Your task to perform on an android device: visit the assistant section in the google photos Image 0: 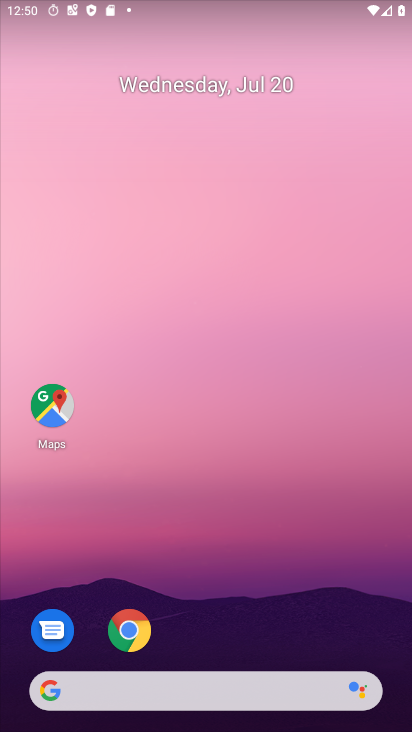
Step 0: drag from (235, 631) to (265, 330)
Your task to perform on an android device: visit the assistant section in the google photos Image 1: 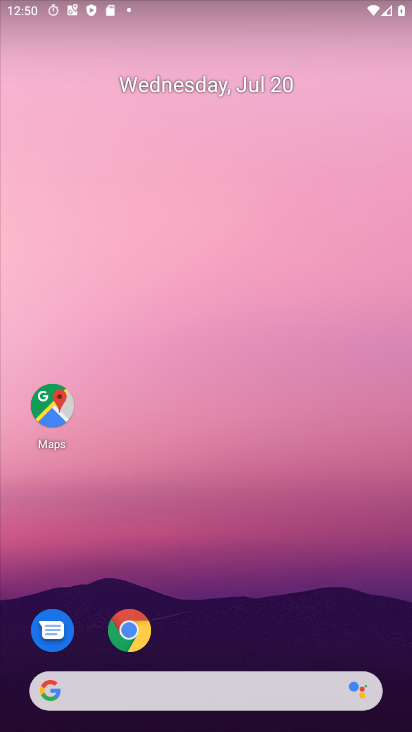
Step 1: drag from (274, 587) to (349, 29)
Your task to perform on an android device: visit the assistant section in the google photos Image 2: 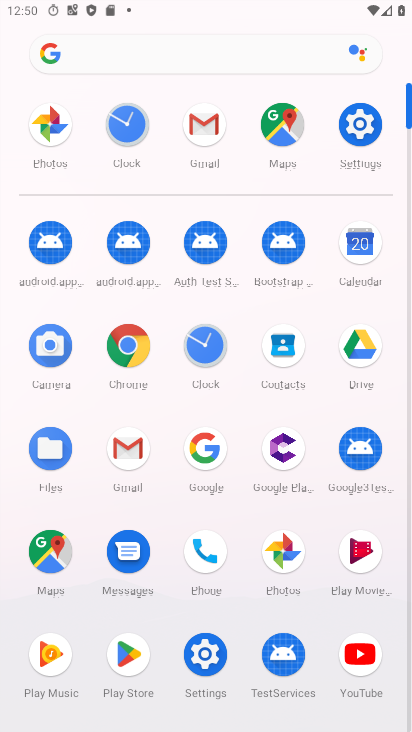
Step 2: click (277, 550)
Your task to perform on an android device: visit the assistant section in the google photos Image 3: 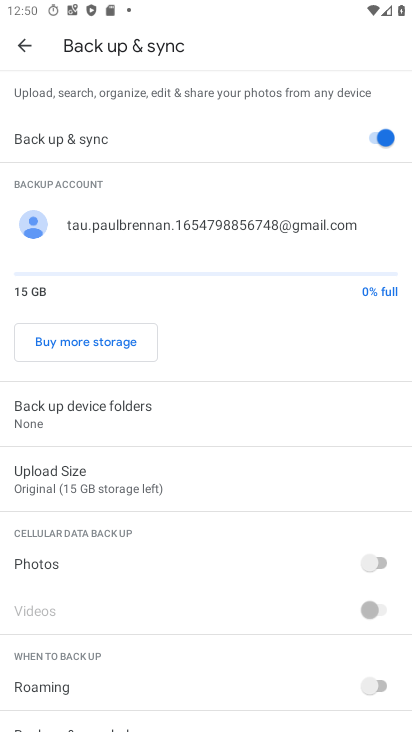
Step 3: click (16, 53)
Your task to perform on an android device: visit the assistant section in the google photos Image 4: 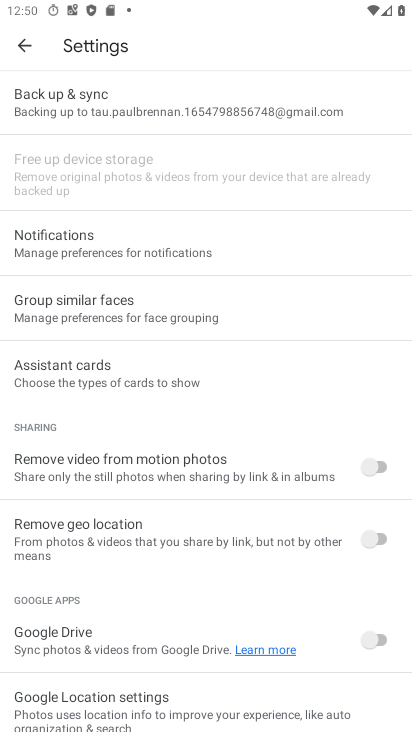
Step 4: click (19, 52)
Your task to perform on an android device: visit the assistant section in the google photos Image 5: 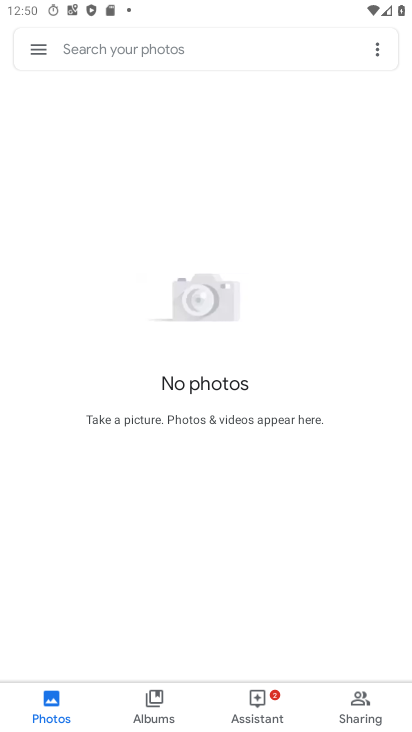
Step 5: click (267, 705)
Your task to perform on an android device: visit the assistant section in the google photos Image 6: 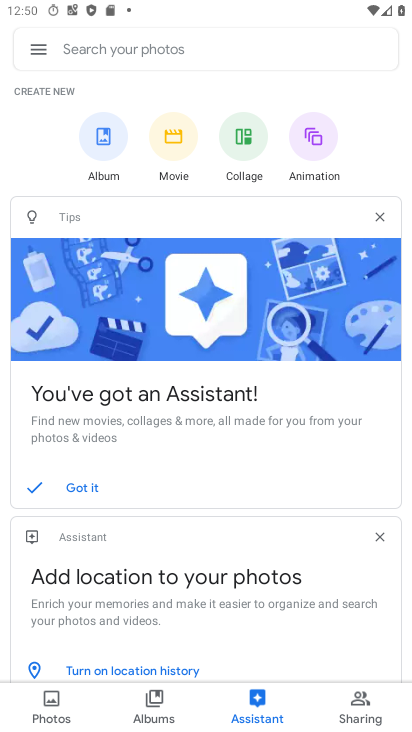
Step 6: task complete